Your task to perform on an android device: toggle show notifications on the lock screen Image 0: 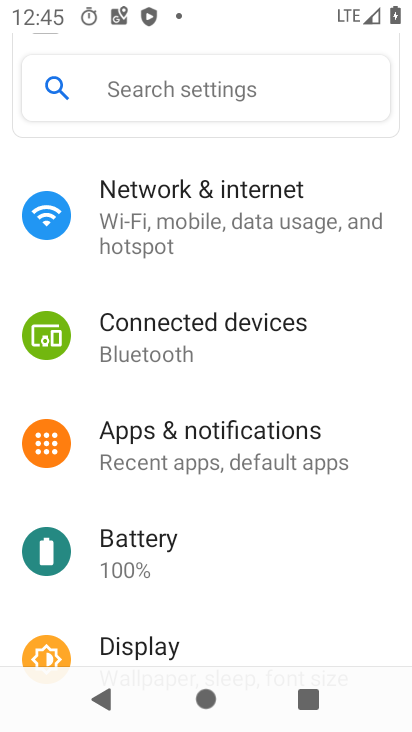
Step 0: press home button
Your task to perform on an android device: toggle show notifications on the lock screen Image 1: 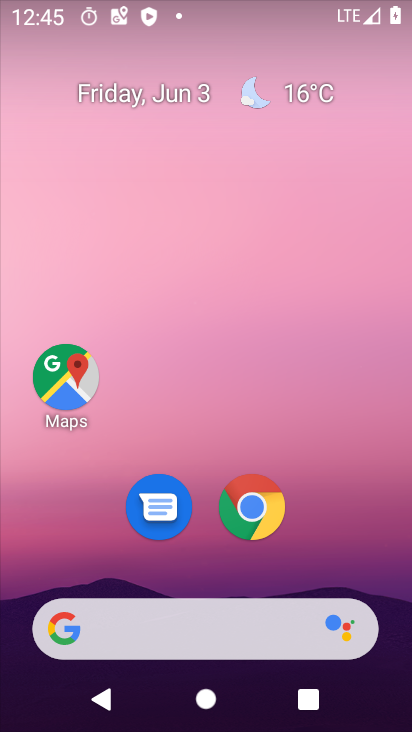
Step 1: drag from (394, 651) to (280, 34)
Your task to perform on an android device: toggle show notifications on the lock screen Image 2: 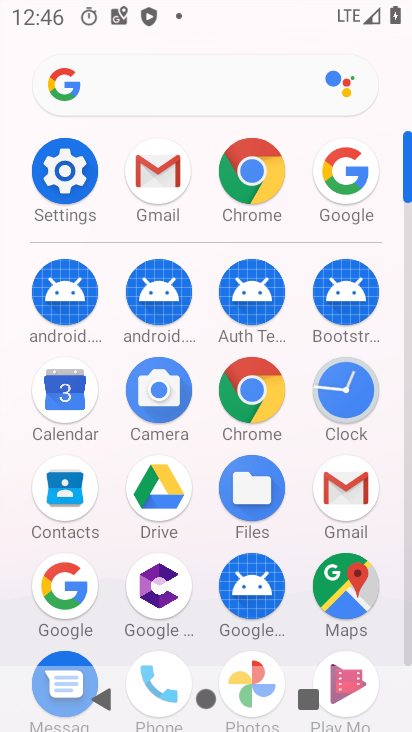
Step 2: click (65, 152)
Your task to perform on an android device: toggle show notifications on the lock screen Image 3: 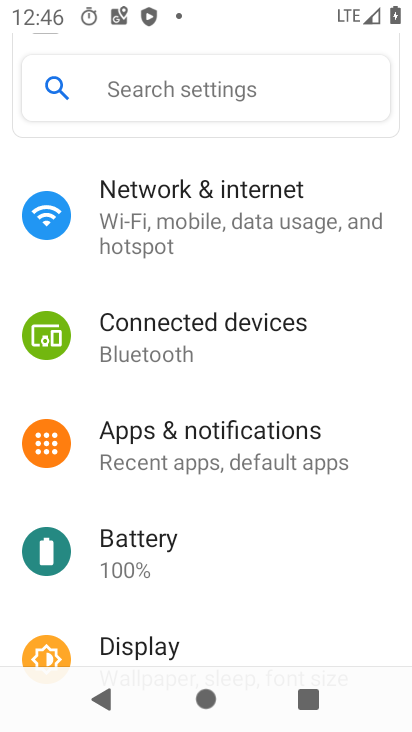
Step 3: click (199, 440)
Your task to perform on an android device: toggle show notifications on the lock screen Image 4: 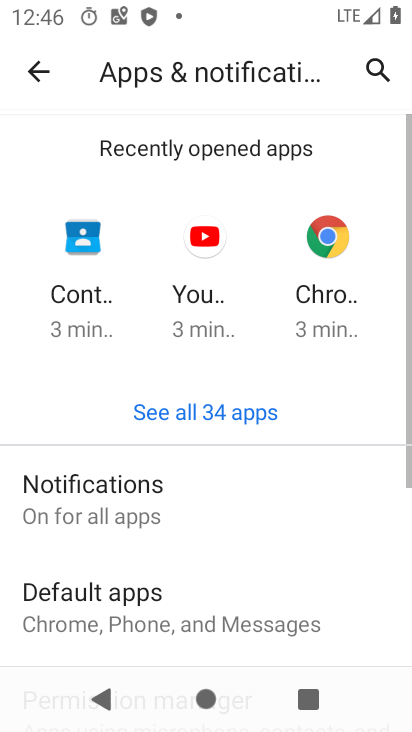
Step 4: click (172, 515)
Your task to perform on an android device: toggle show notifications on the lock screen Image 5: 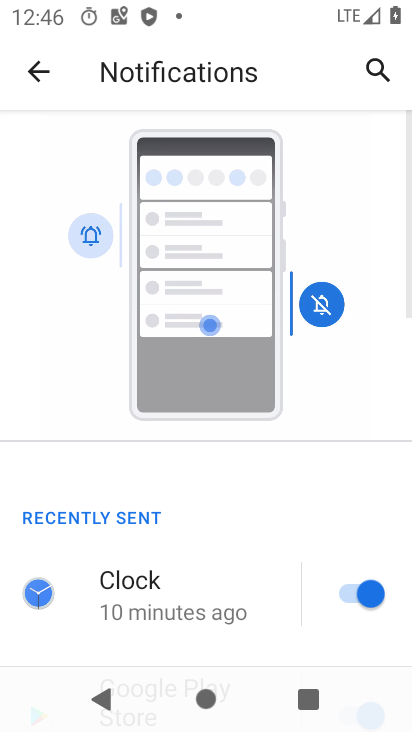
Step 5: drag from (214, 614) to (230, 39)
Your task to perform on an android device: toggle show notifications on the lock screen Image 6: 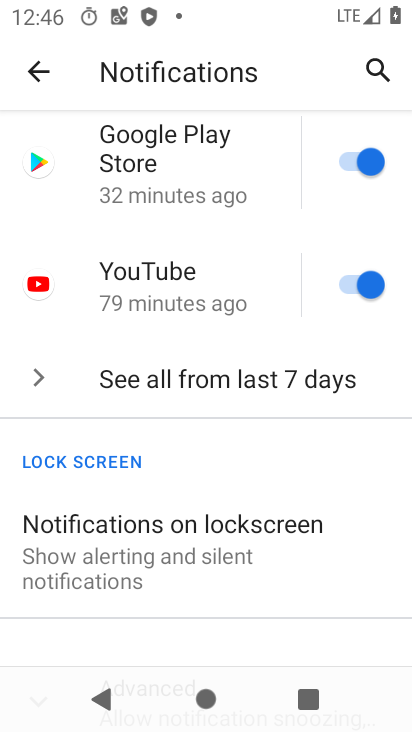
Step 6: click (188, 561)
Your task to perform on an android device: toggle show notifications on the lock screen Image 7: 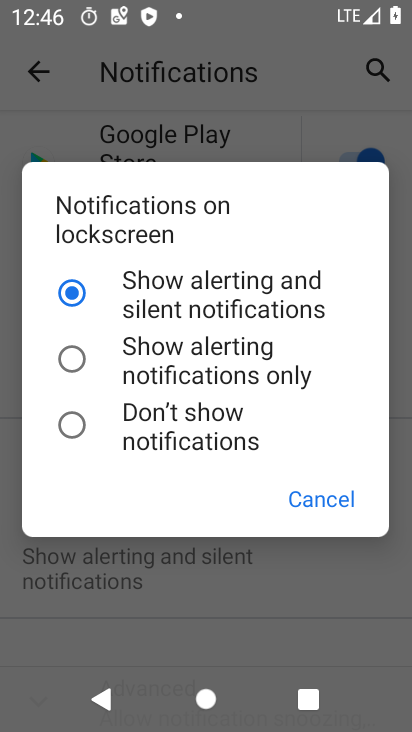
Step 7: click (73, 433)
Your task to perform on an android device: toggle show notifications on the lock screen Image 8: 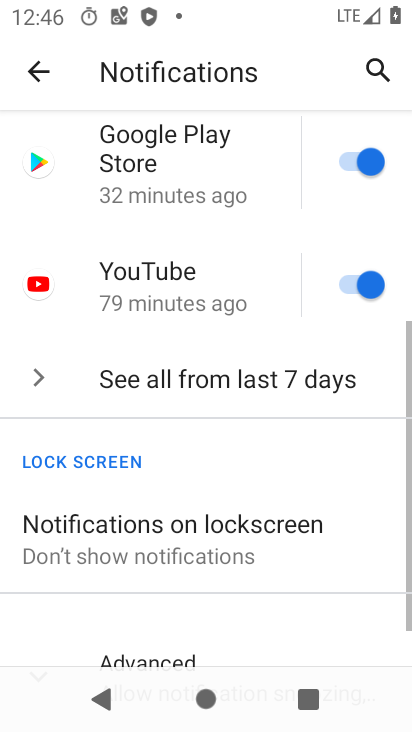
Step 8: task complete